Your task to perform on an android device: Open settings on Google Maps Image 0: 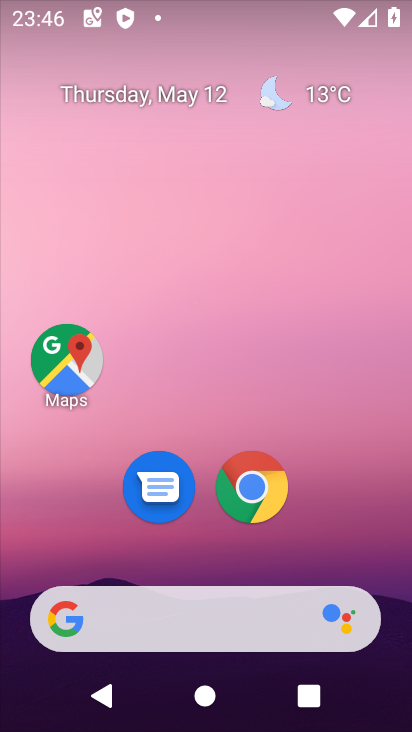
Step 0: click (72, 387)
Your task to perform on an android device: Open settings on Google Maps Image 1: 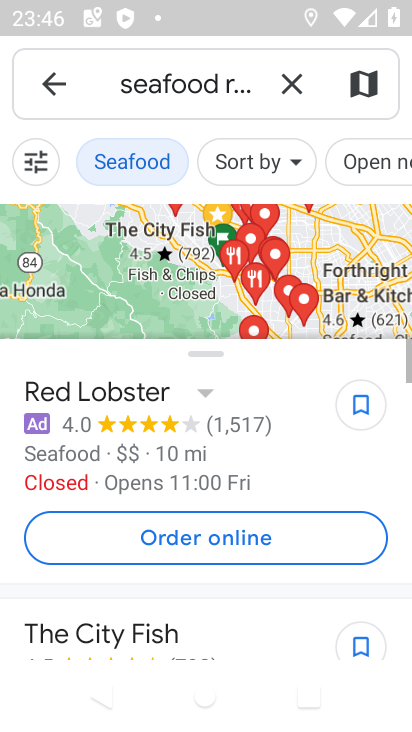
Step 1: click (59, 88)
Your task to perform on an android device: Open settings on Google Maps Image 2: 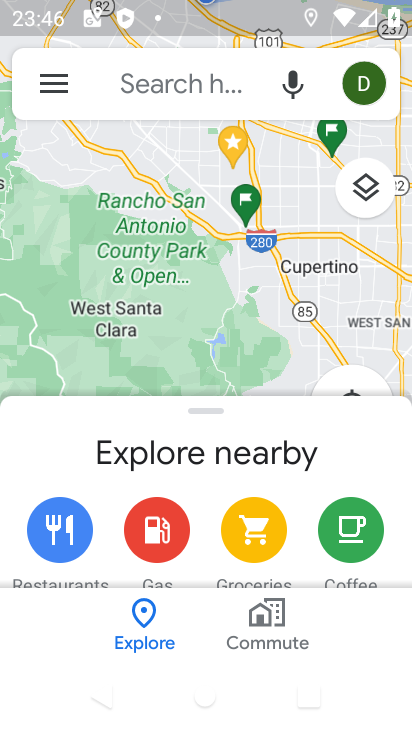
Step 2: click (59, 88)
Your task to perform on an android device: Open settings on Google Maps Image 3: 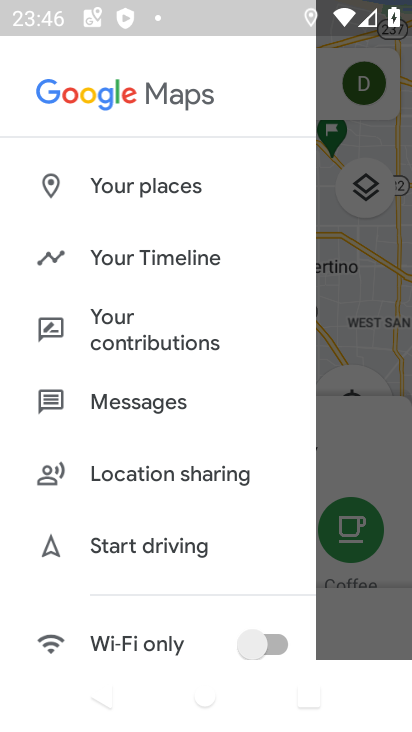
Step 3: drag from (141, 607) to (195, 245)
Your task to perform on an android device: Open settings on Google Maps Image 4: 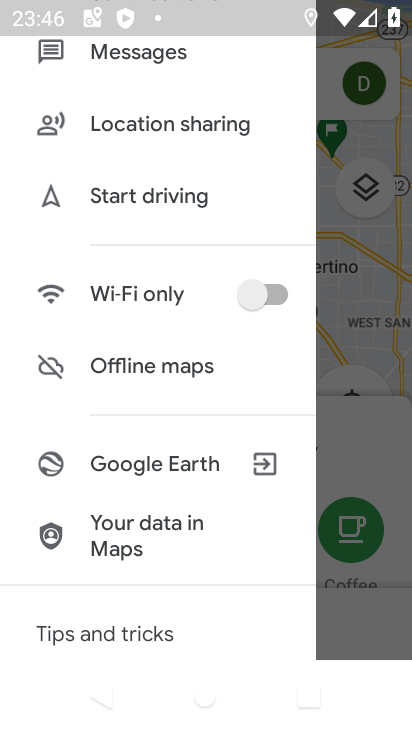
Step 4: drag from (138, 515) to (129, 304)
Your task to perform on an android device: Open settings on Google Maps Image 5: 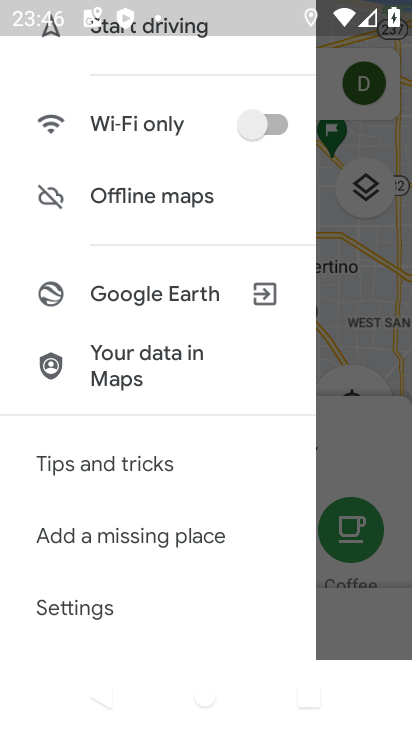
Step 5: click (154, 616)
Your task to perform on an android device: Open settings on Google Maps Image 6: 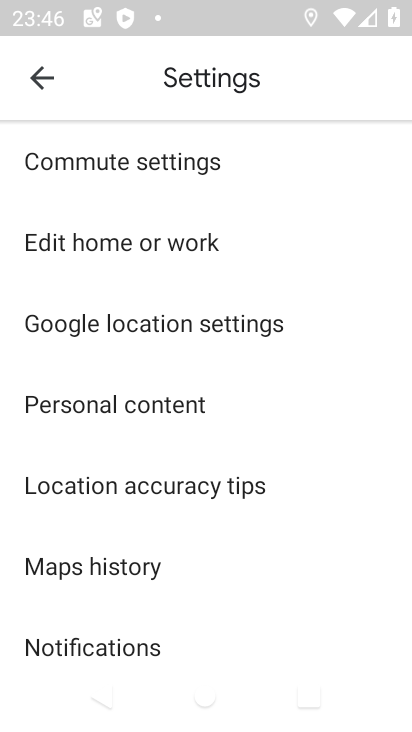
Step 6: task complete